Your task to perform on an android device: turn vacation reply on in the gmail app Image 0: 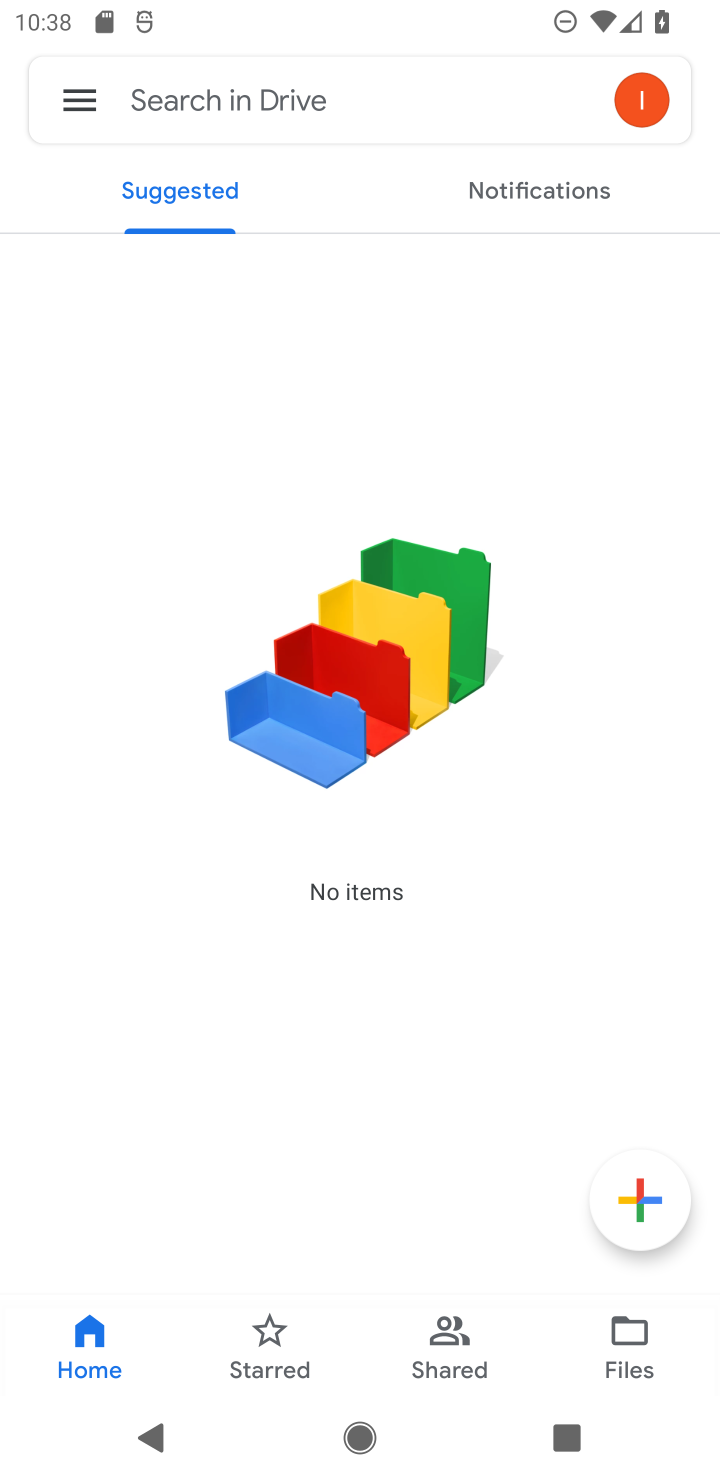
Step 0: press home button
Your task to perform on an android device: turn vacation reply on in the gmail app Image 1: 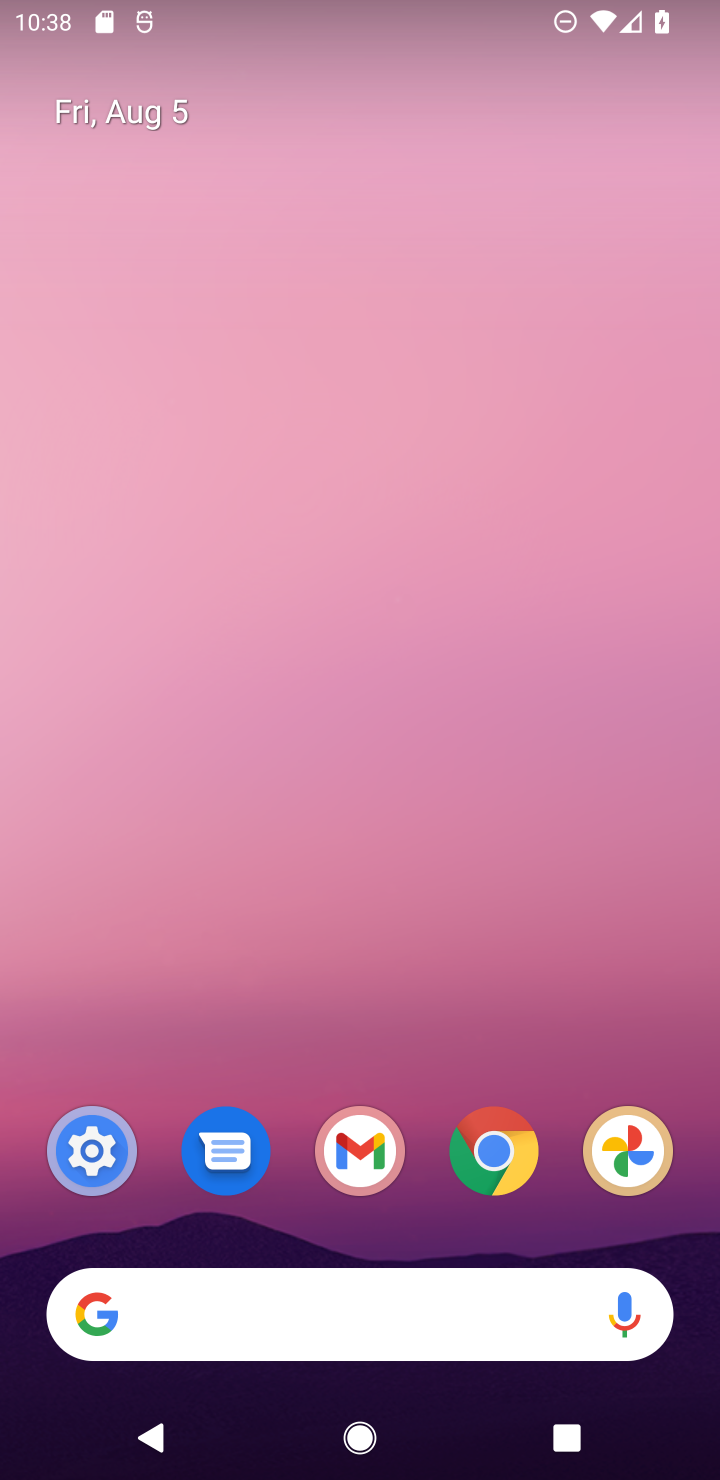
Step 1: click (359, 1178)
Your task to perform on an android device: turn vacation reply on in the gmail app Image 2: 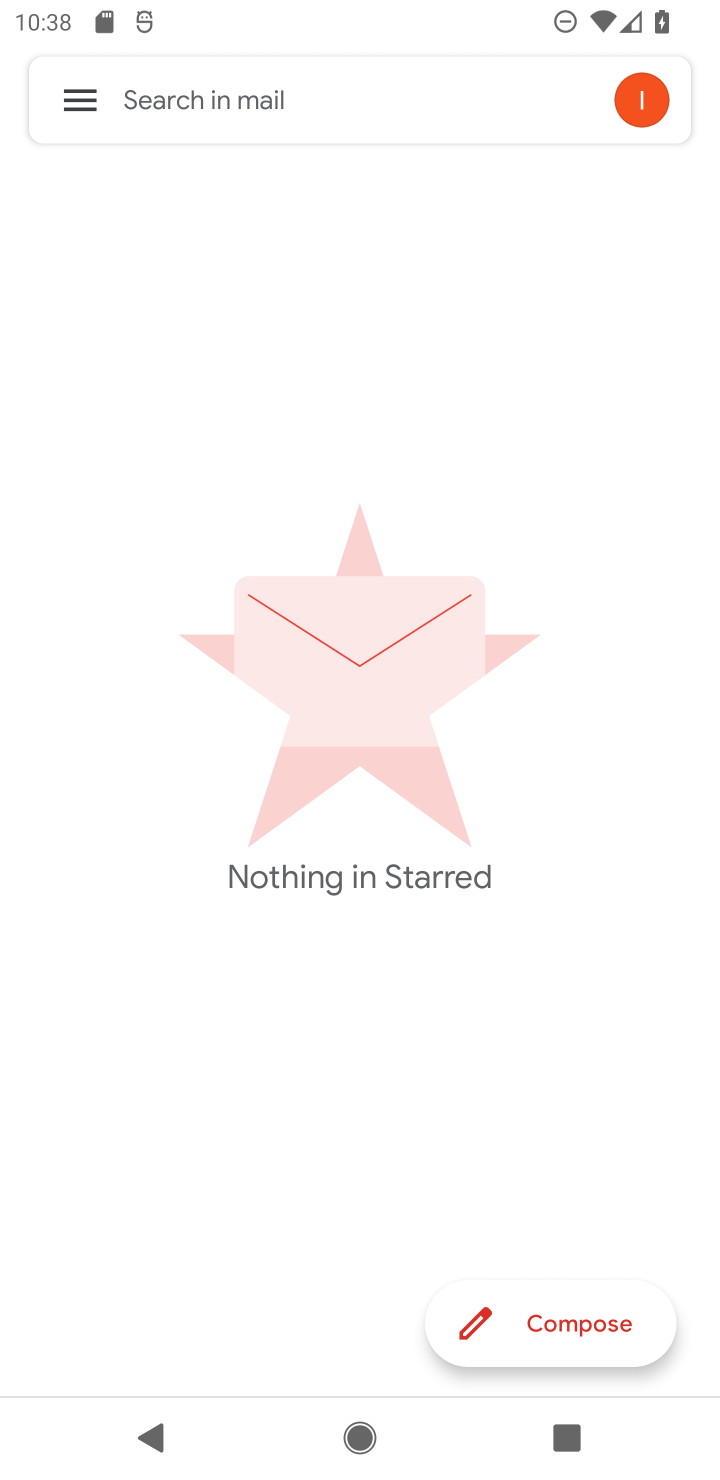
Step 2: click (83, 101)
Your task to perform on an android device: turn vacation reply on in the gmail app Image 3: 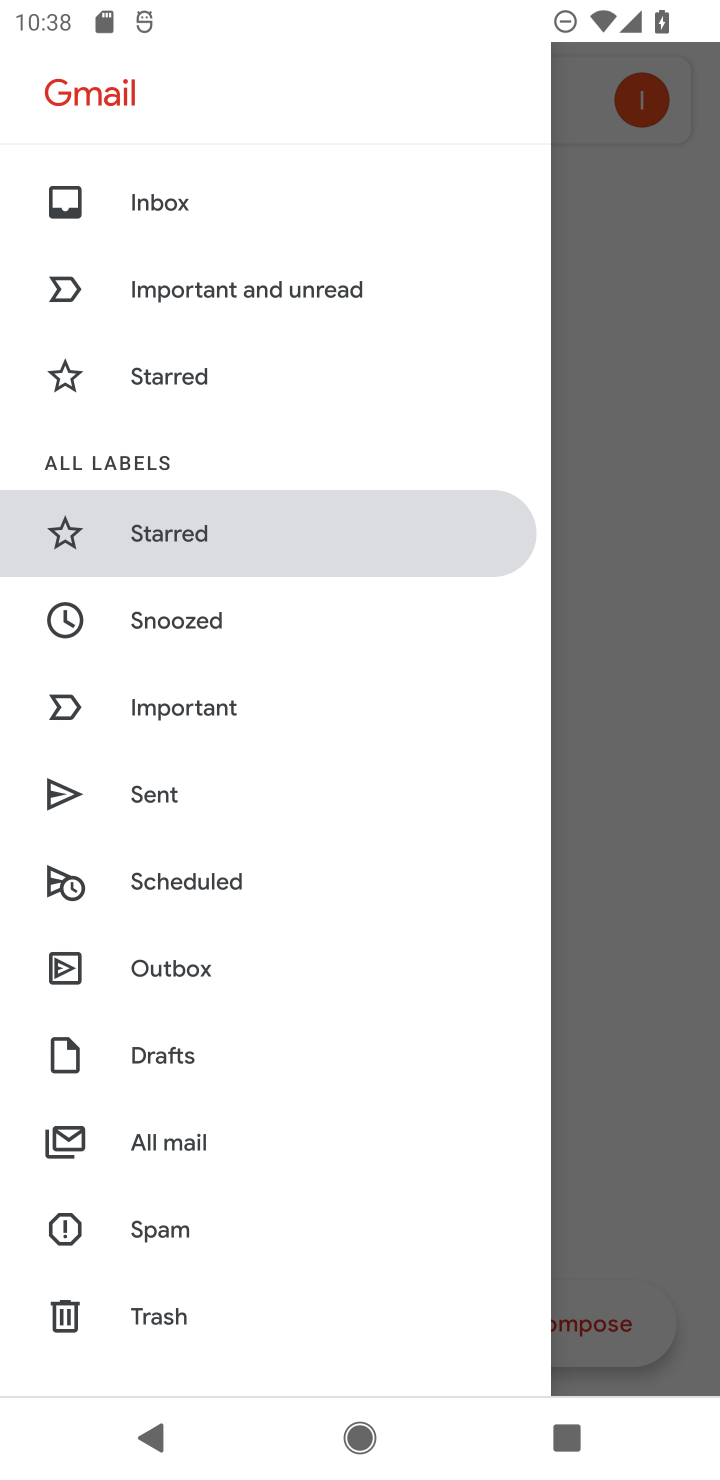
Step 3: drag from (293, 1067) to (222, 50)
Your task to perform on an android device: turn vacation reply on in the gmail app Image 4: 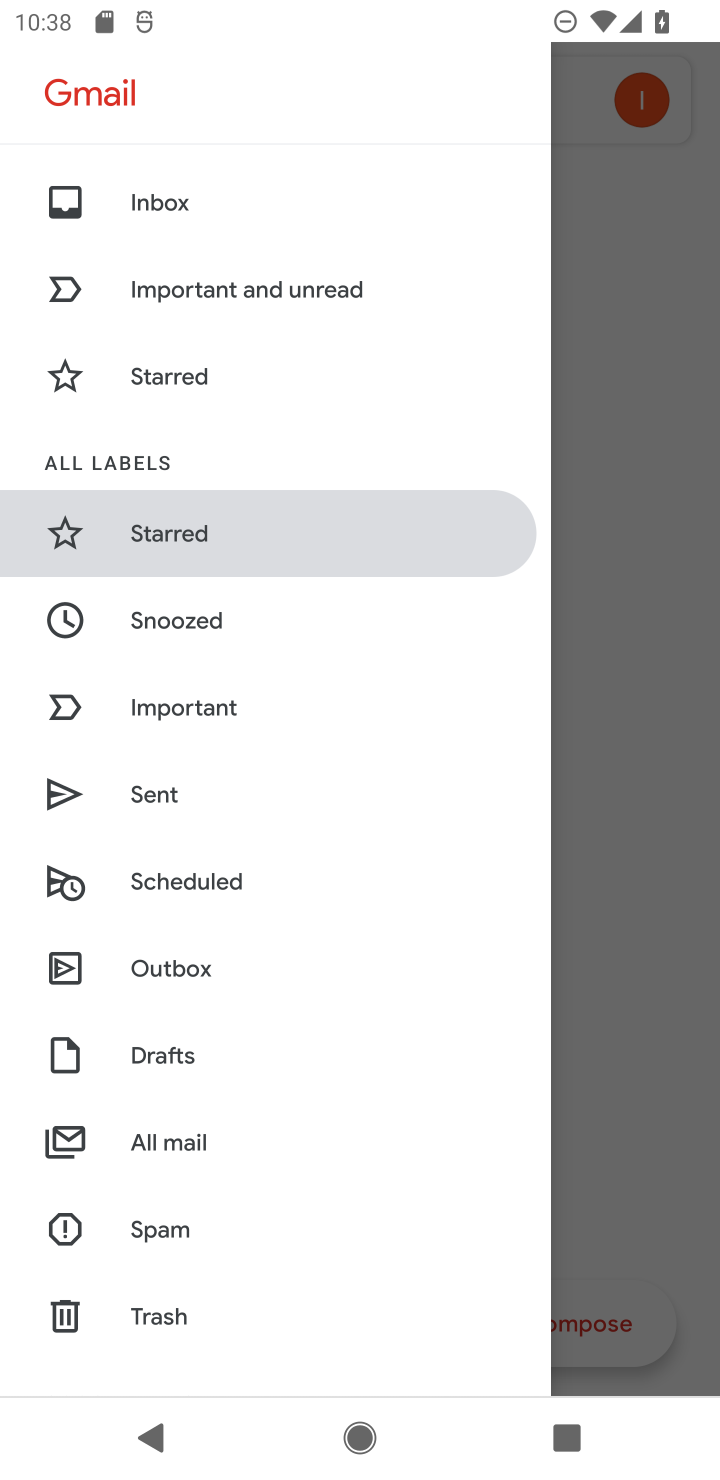
Step 4: drag from (228, 771) to (228, 300)
Your task to perform on an android device: turn vacation reply on in the gmail app Image 5: 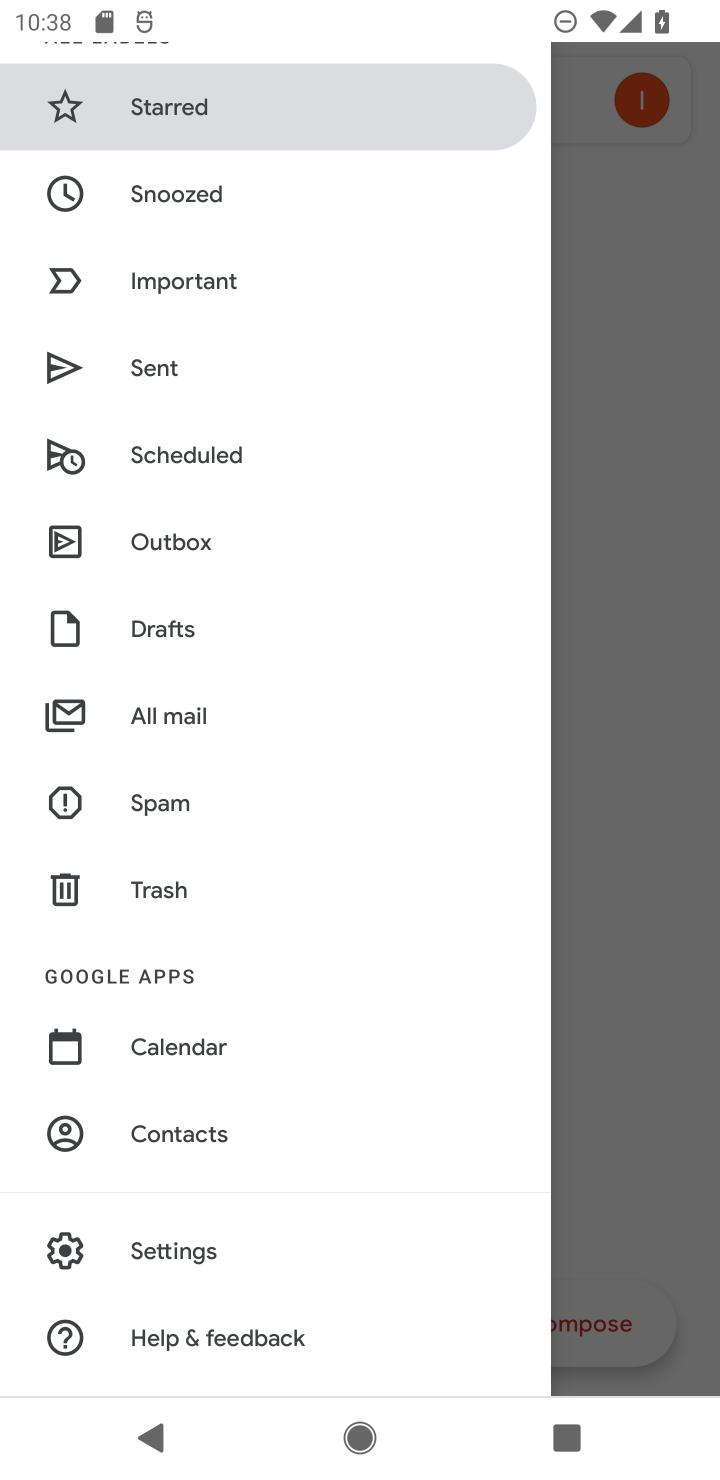
Step 5: click (153, 1241)
Your task to perform on an android device: turn vacation reply on in the gmail app Image 6: 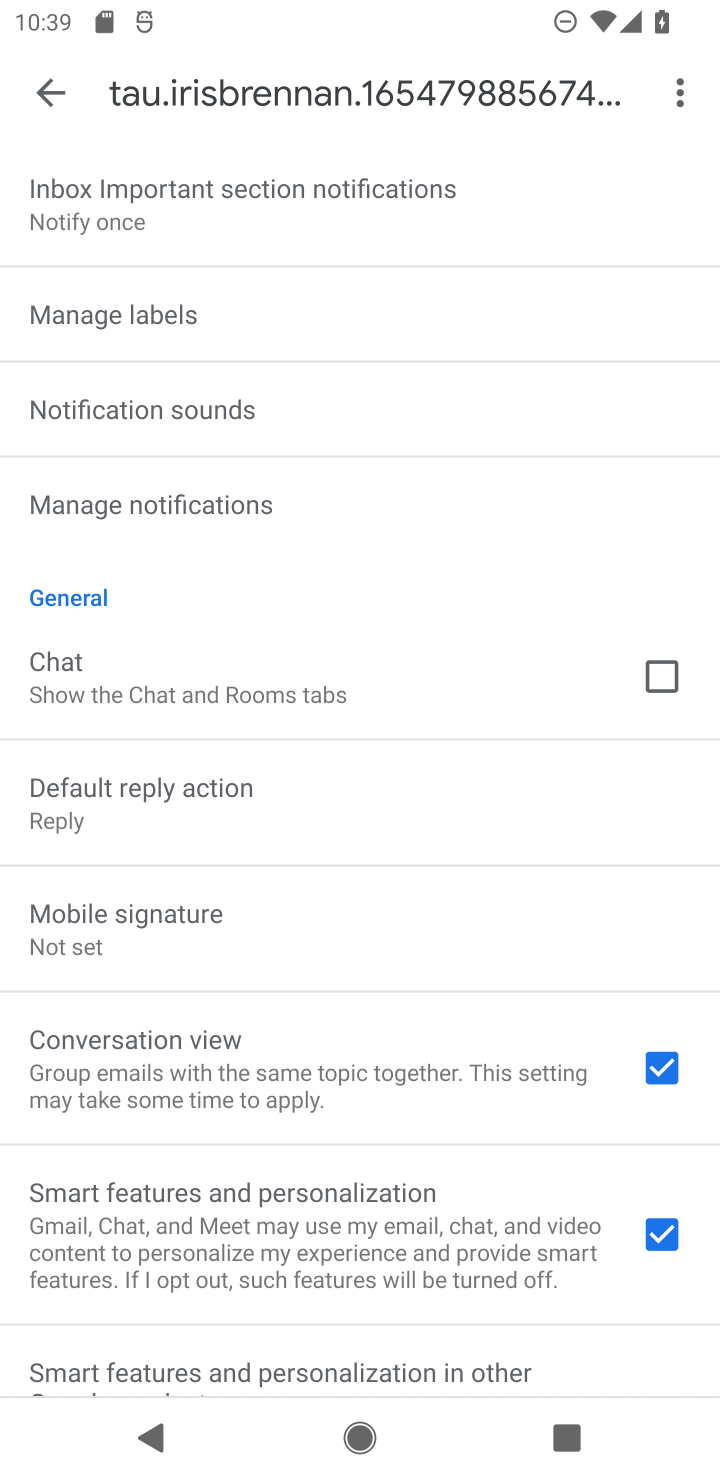
Step 6: drag from (245, 1178) to (339, 581)
Your task to perform on an android device: turn vacation reply on in the gmail app Image 7: 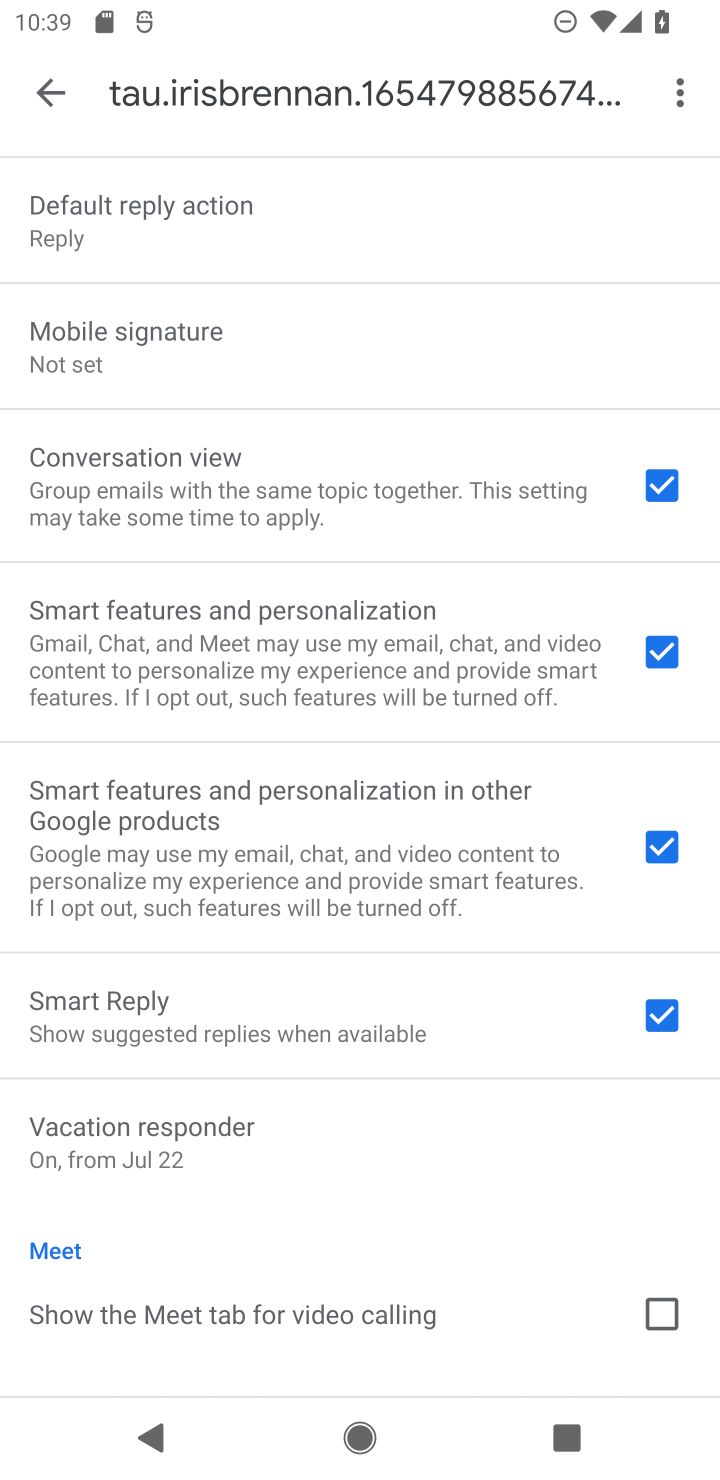
Step 7: click (162, 1174)
Your task to perform on an android device: turn vacation reply on in the gmail app Image 8: 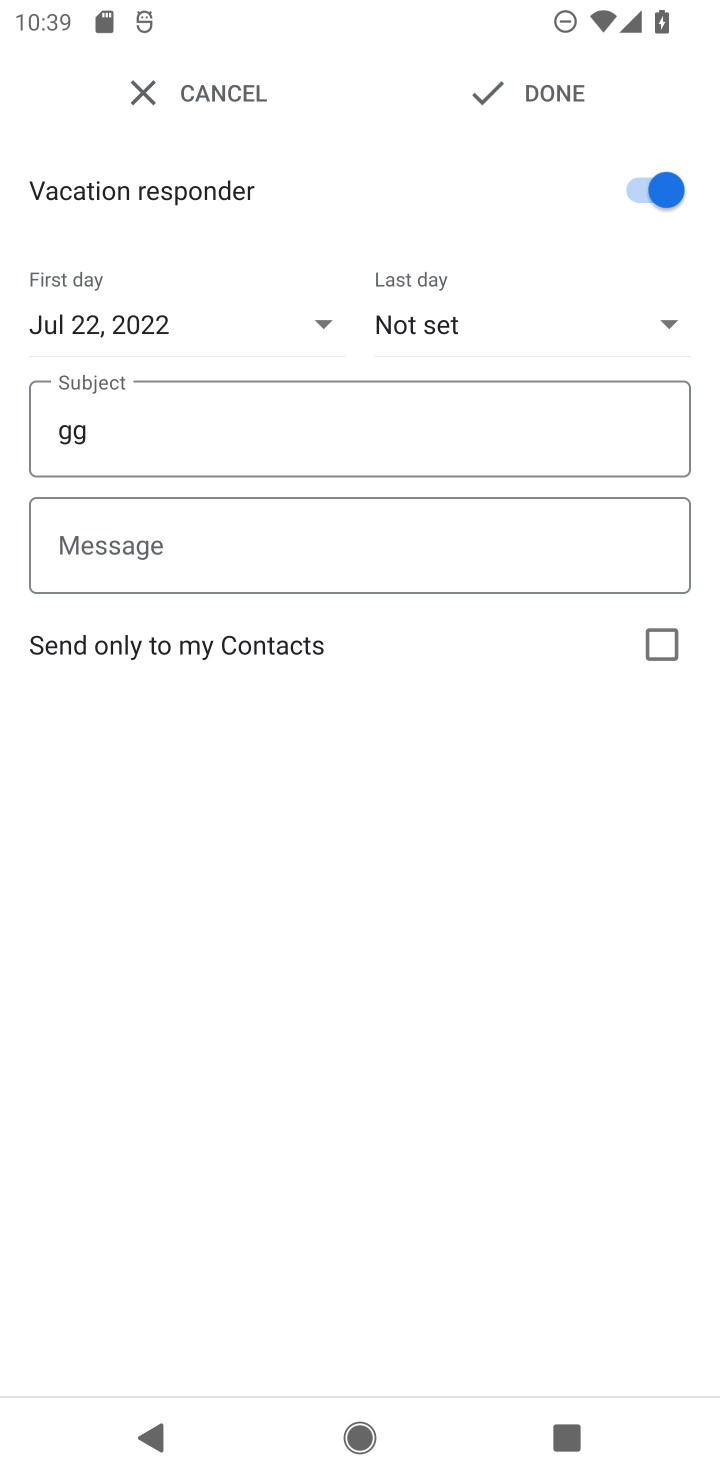
Step 8: click (646, 211)
Your task to perform on an android device: turn vacation reply on in the gmail app Image 9: 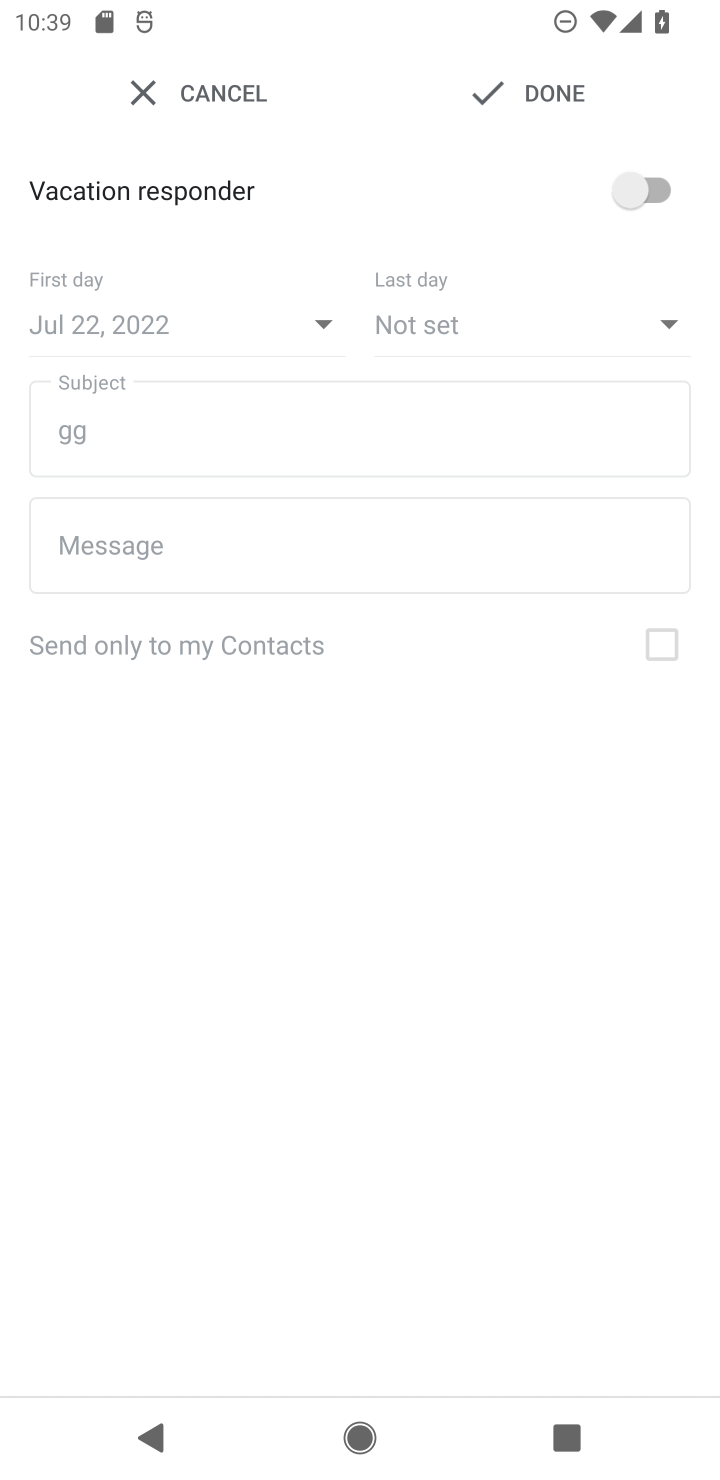
Step 9: task complete